Your task to perform on an android device: Search for the ikea billy bookcase Image 0: 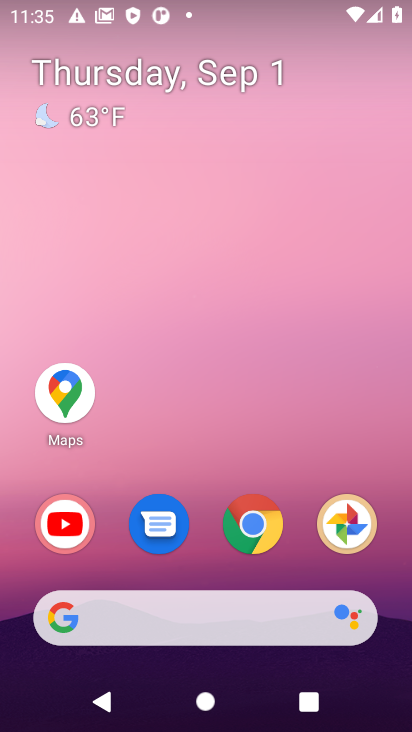
Step 0: click (258, 525)
Your task to perform on an android device: Search for the ikea billy bookcase Image 1: 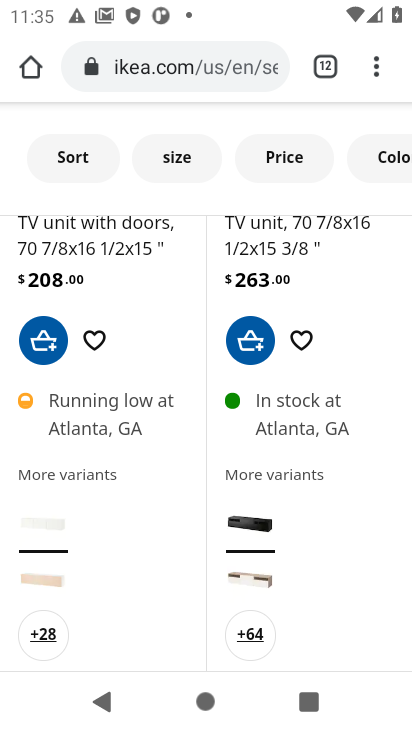
Step 1: click (331, 80)
Your task to perform on an android device: Search for the ikea billy bookcase Image 2: 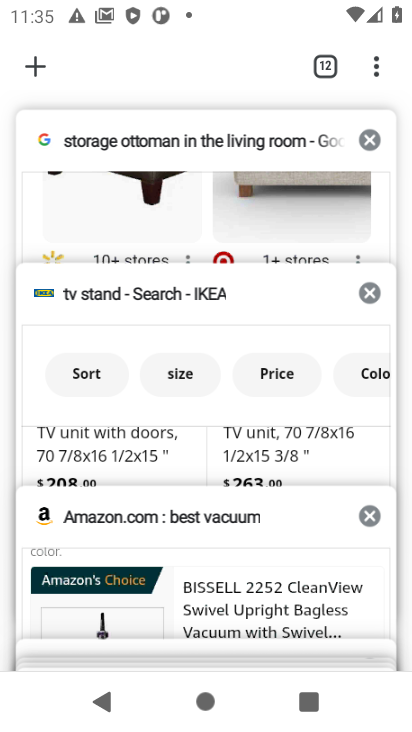
Step 2: click (37, 63)
Your task to perform on an android device: Search for the ikea billy bookcase Image 3: 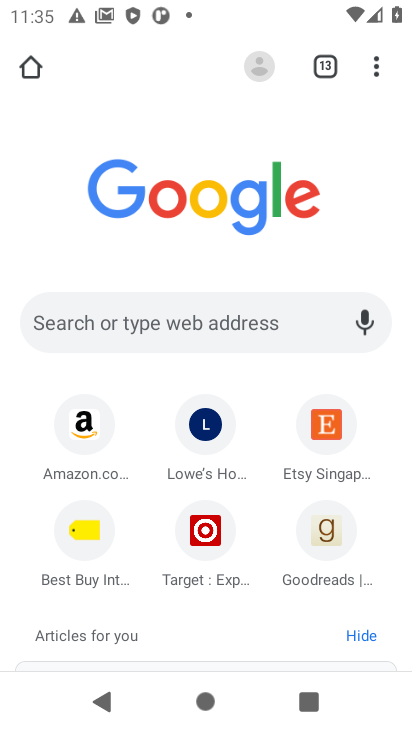
Step 3: click (119, 318)
Your task to perform on an android device: Search for the ikea billy bookcase Image 4: 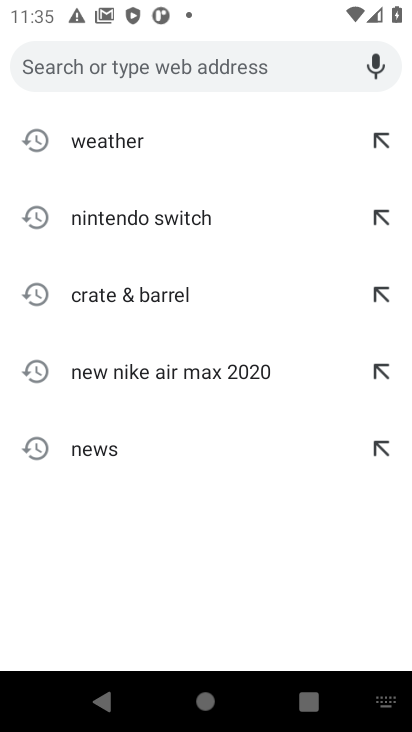
Step 4: type "ikea billy bookcase"
Your task to perform on an android device: Search for the ikea billy bookcase Image 5: 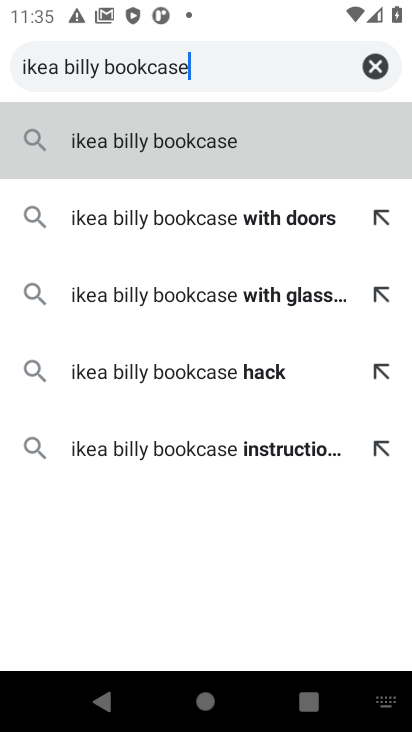
Step 5: click (249, 153)
Your task to perform on an android device: Search for the ikea billy bookcase Image 6: 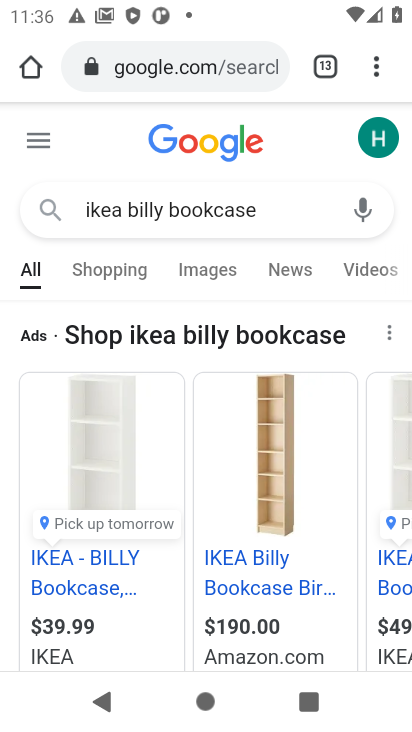
Step 6: click (102, 558)
Your task to perform on an android device: Search for the ikea billy bookcase Image 7: 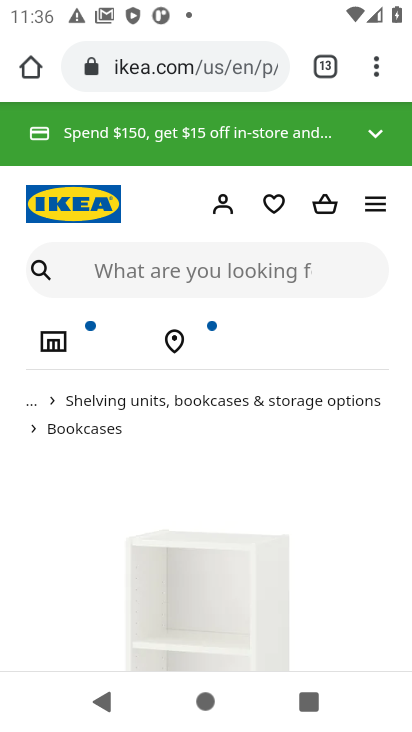
Step 7: task complete